Your task to perform on an android device: What's the weather going to be this weekend? Image 0: 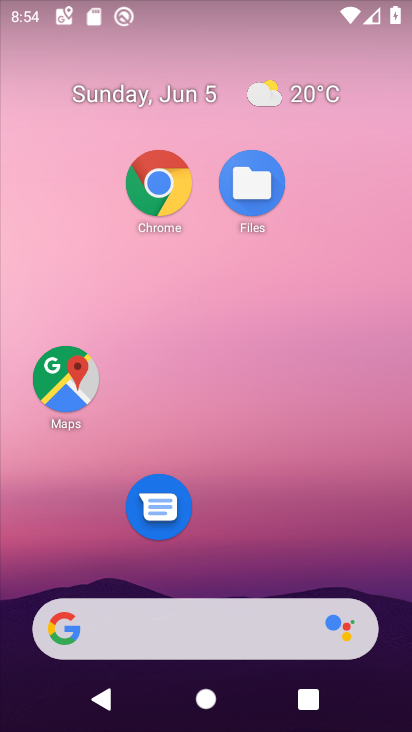
Step 0: click (221, 637)
Your task to perform on an android device: What's the weather going to be this weekend? Image 1: 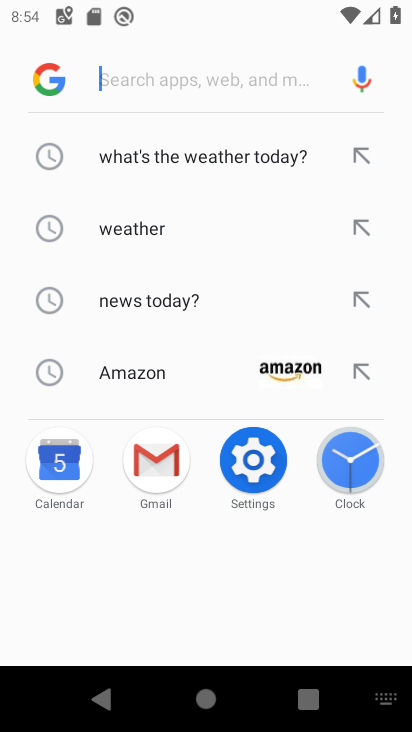
Step 1: click (146, 242)
Your task to perform on an android device: What's the weather going to be this weekend? Image 2: 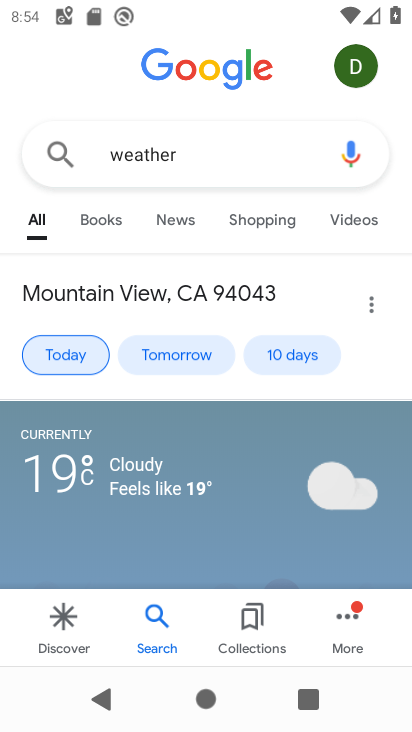
Step 2: click (314, 347)
Your task to perform on an android device: What's the weather going to be this weekend? Image 3: 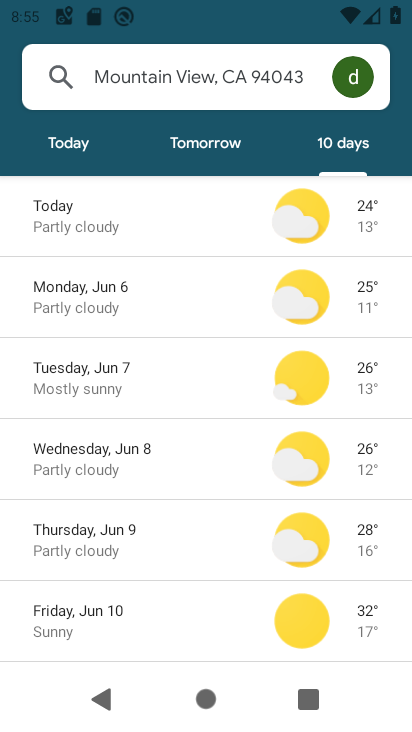
Step 3: task complete